Your task to perform on an android device: Check the weather Image 0: 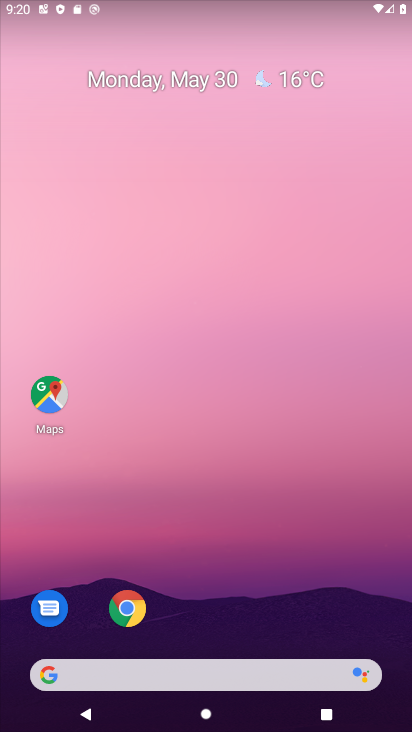
Step 0: click (311, 81)
Your task to perform on an android device: Check the weather Image 1: 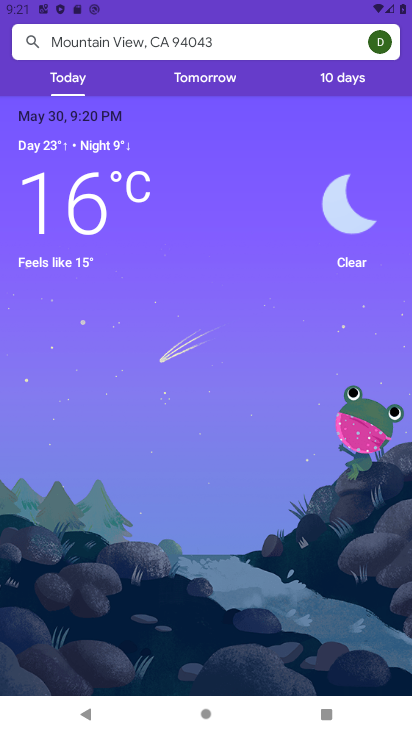
Step 1: task complete